Your task to perform on an android device: install app "Messenger Lite" Image 0: 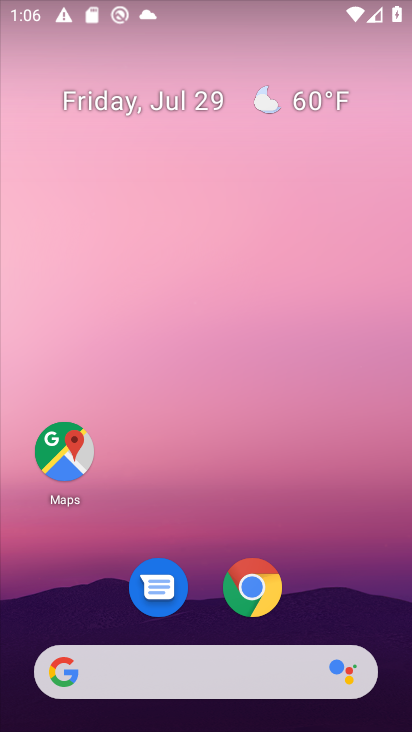
Step 0: drag from (212, 706) to (323, 34)
Your task to perform on an android device: install app "Messenger Lite" Image 1: 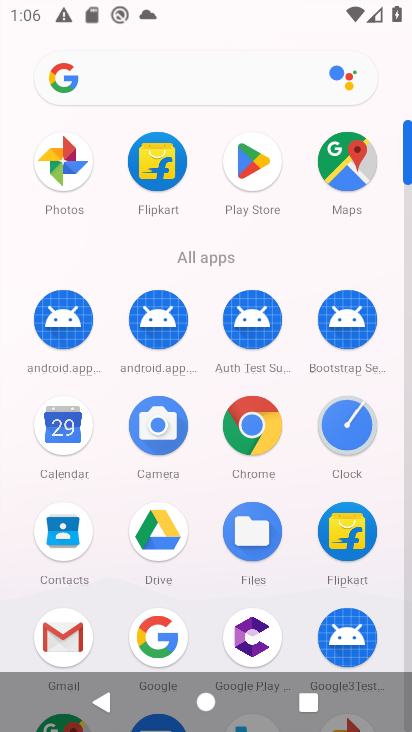
Step 1: click (248, 169)
Your task to perform on an android device: install app "Messenger Lite" Image 2: 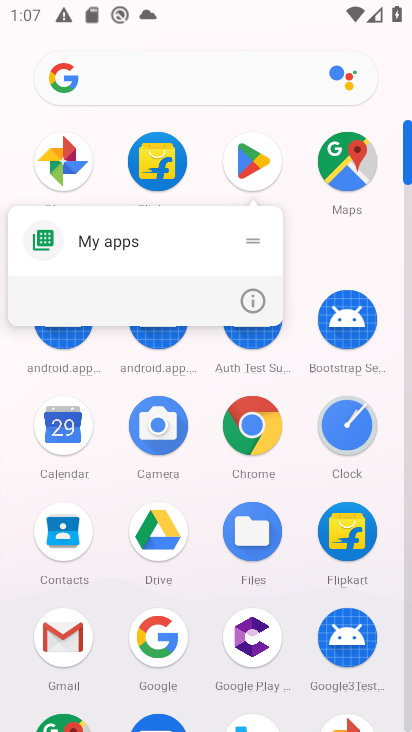
Step 2: click (237, 168)
Your task to perform on an android device: install app "Messenger Lite" Image 3: 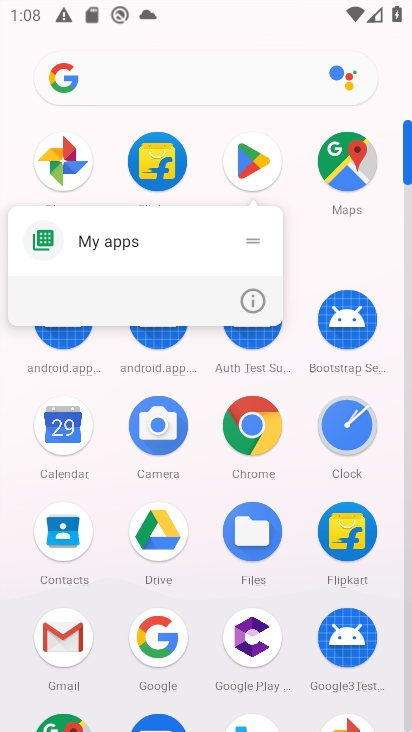
Step 3: click (252, 158)
Your task to perform on an android device: install app "Messenger Lite" Image 4: 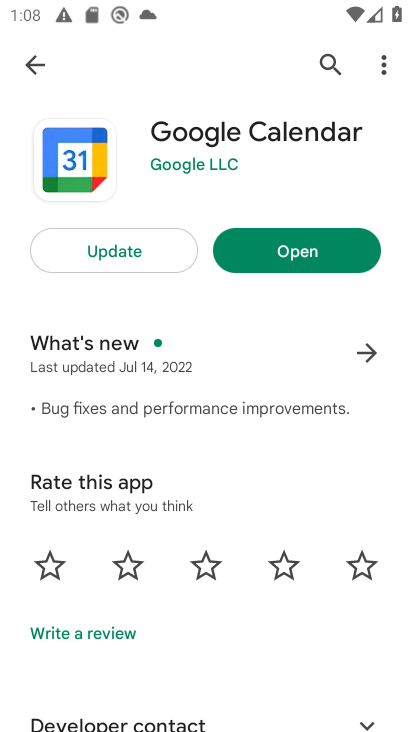
Step 4: click (337, 63)
Your task to perform on an android device: install app "Messenger Lite" Image 5: 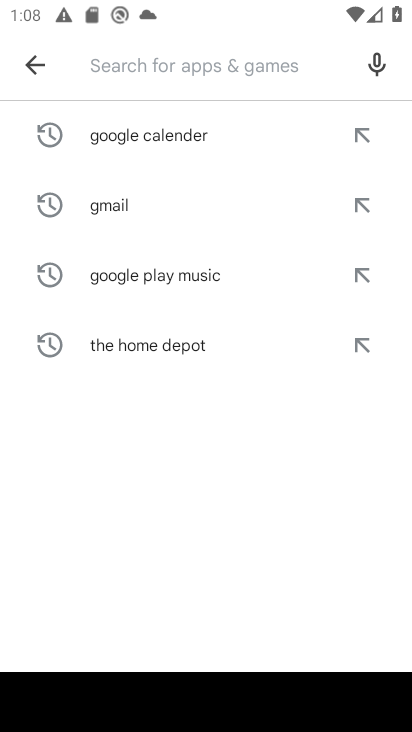
Step 5: type "Messenger Lite"
Your task to perform on an android device: install app "Messenger Lite" Image 6: 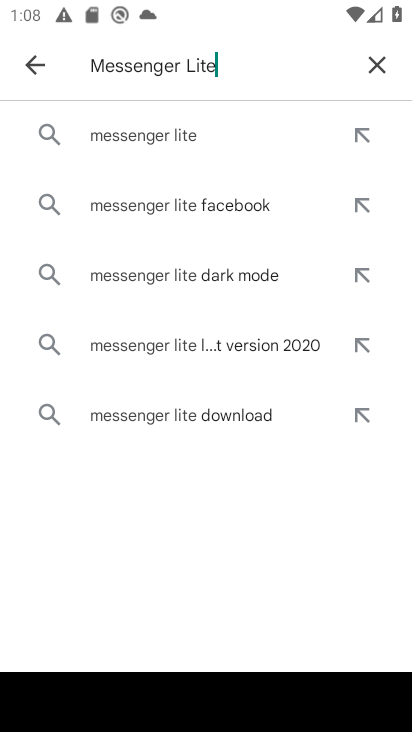
Step 6: click (154, 135)
Your task to perform on an android device: install app "Messenger Lite" Image 7: 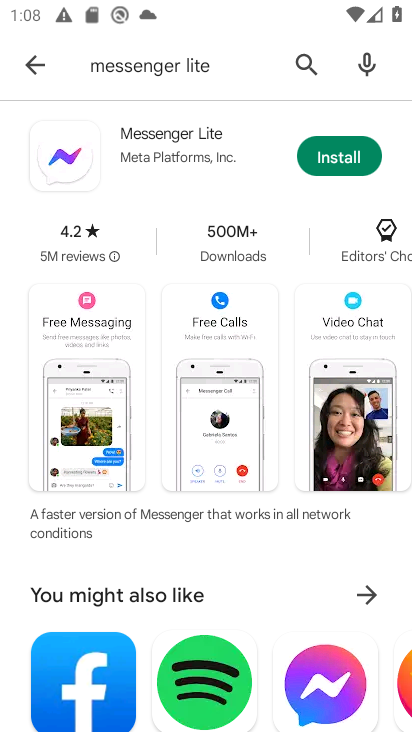
Step 7: click (356, 141)
Your task to perform on an android device: install app "Messenger Lite" Image 8: 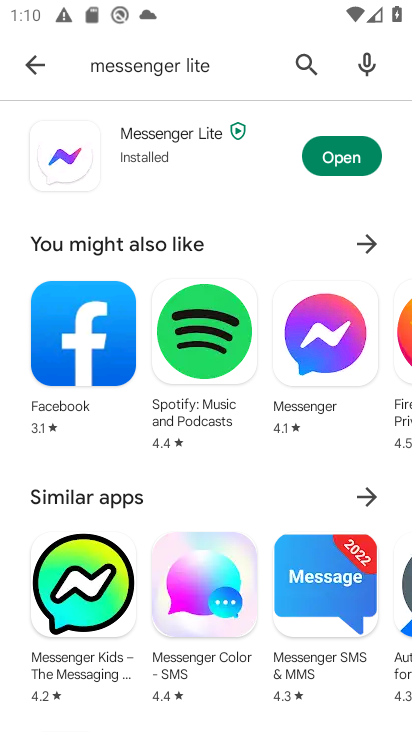
Step 8: task complete